Your task to perform on an android device: Open Google Chrome and click the shortcut for Amazon.com Image 0: 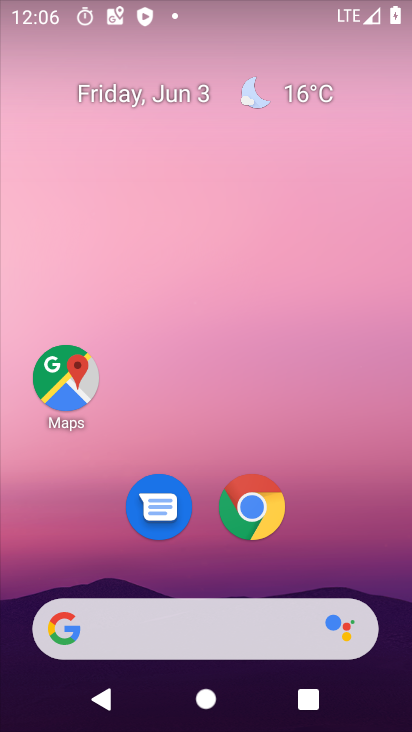
Step 0: drag from (399, 641) to (304, 171)
Your task to perform on an android device: Open Google Chrome and click the shortcut for Amazon.com Image 1: 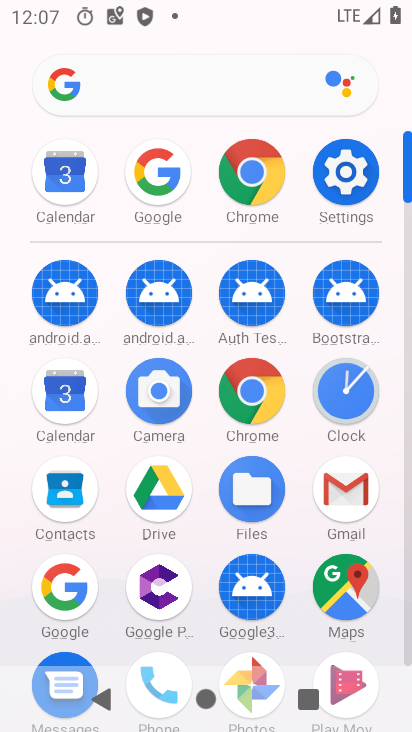
Step 1: click (241, 403)
Your task to perform on an android device: Open Google Chrome and click the shortcut for Amazon.com Image 2: 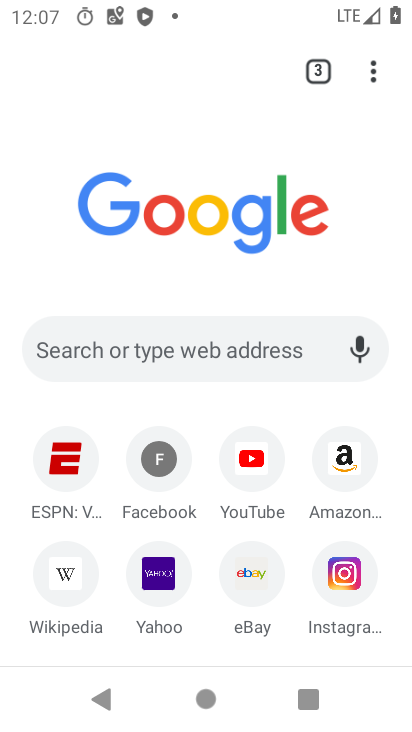
Step 2: click (330, 462)
Your task to perform on an android device: Open Google Chrome and click the shortcut for Amazon.com Image 3: 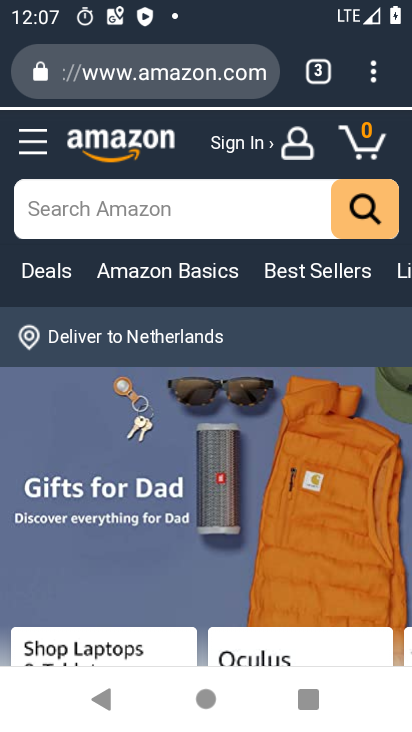
Step 3: task complete